Your task to perform on an android device: check battery use Image 0: 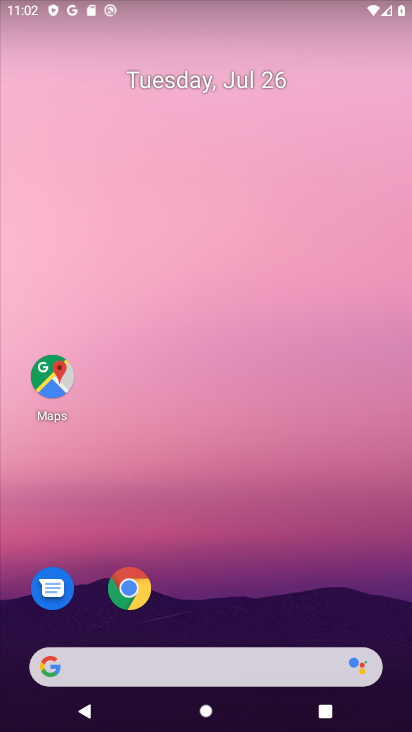
Step 0: press home button
Your task to perform on an android device: check battery use Image 1: 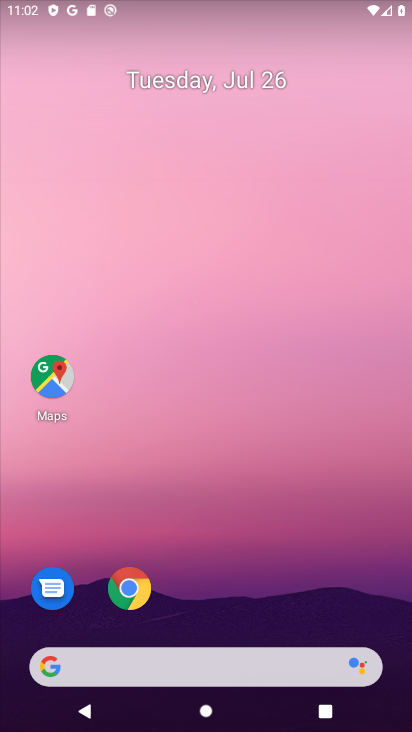
Step 1: drag from (218, 632) to (269, 0)
Your task to perform on an android device: check battery use Image 2: 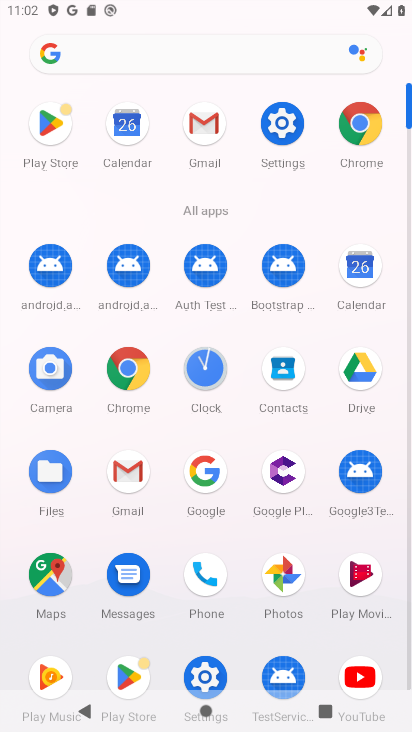
Step 2: click (279, 117)
Your task to perform on an android device: check battery use Image 3: 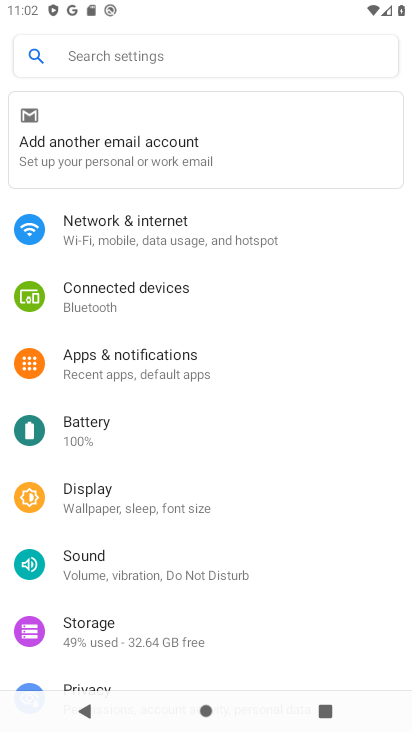
Step 3: click (118, 422)
Your task to perform on an android device: check battery use Image 4: 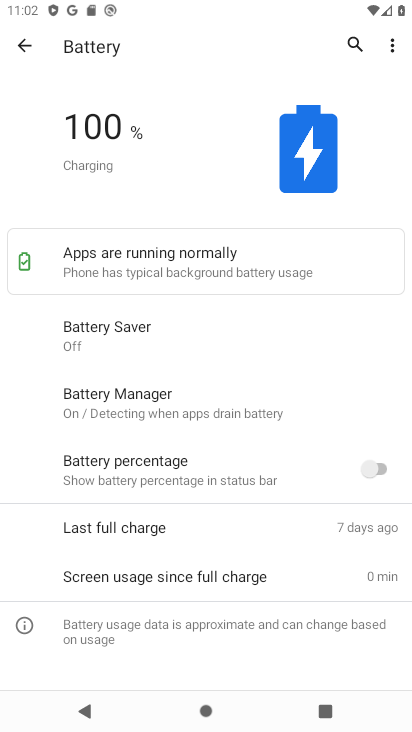
Step 4: click (393, 44)
Your task to perform on an android device: check battery use Image 5: 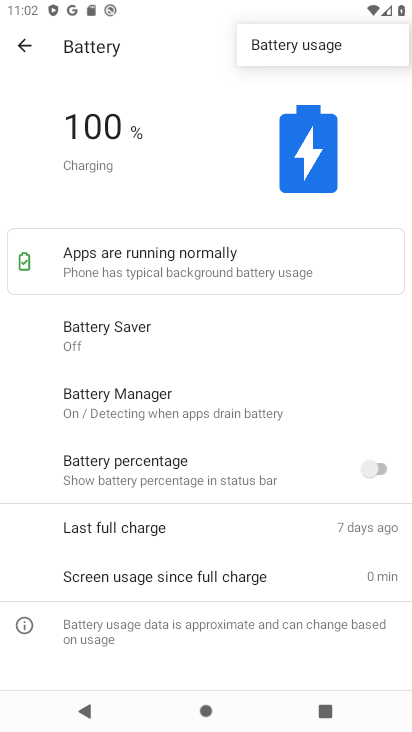
Step 5: click (299, 50)
Your task to perform on an android device: check battery use Image 6: 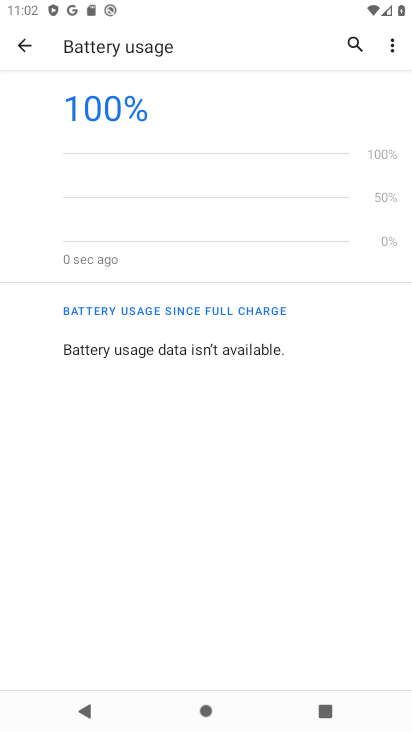
Step 6: task complete